Your task to perform on an android device: stop showing notifications on the lock screen Image 0: 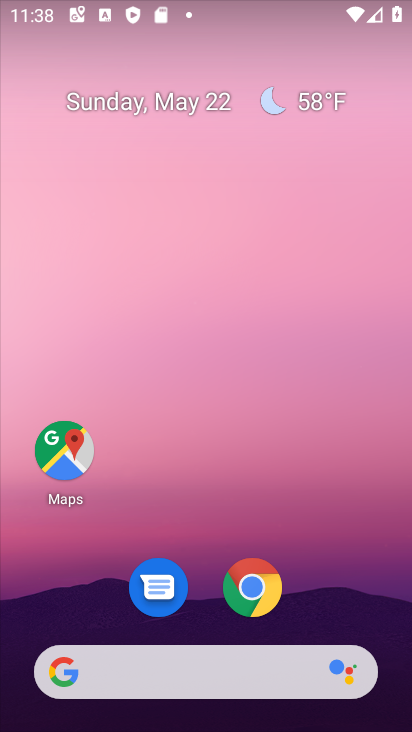
Step 0: drag from (248, 495) to (246, 10)
Your task to perform on an android device: stop showing notifications on the lock screen Image 1: 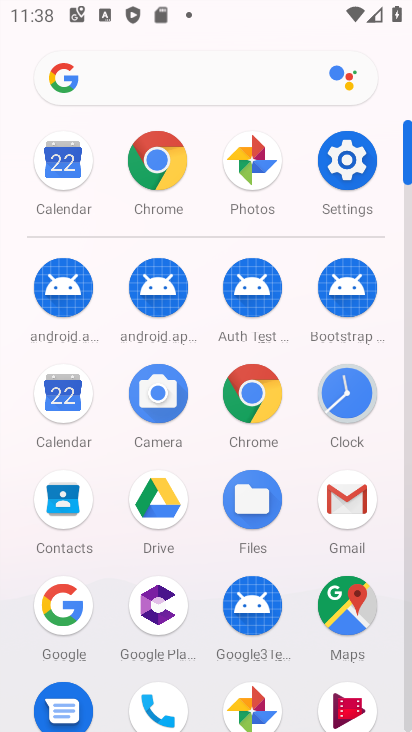
Step 1: click (332, 176)
Your task to perform on an android device: stop showing notifications on the lock screen Image 2: 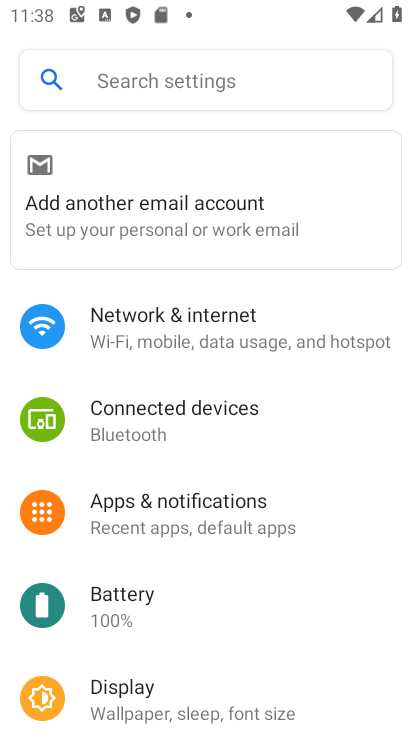
Step 2: click (250, 526)
Your task to perform on an android device: stop showing notifications on the lock screen Image 3: 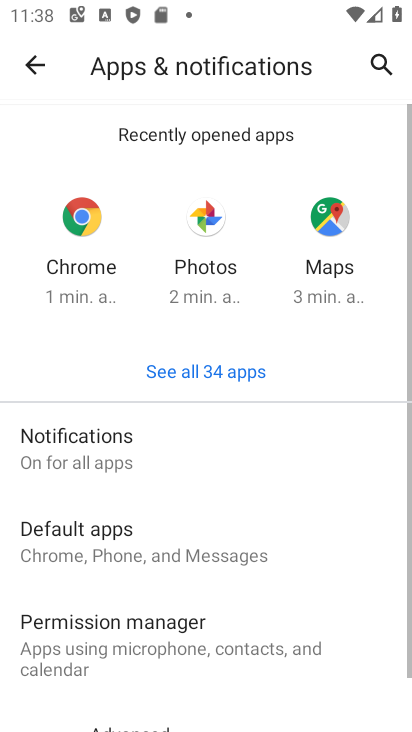
Step 3: drag from (273, 597) to (283, 160)
Your task to perform on an android device: stop showing notifications on the lock screen Image 4: 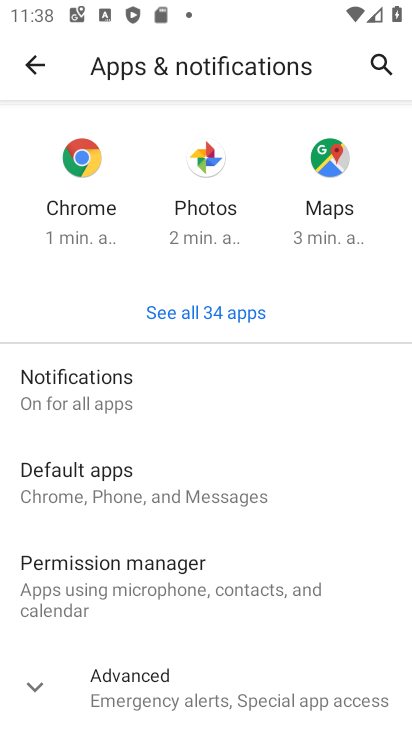
Step 4: click (173, 388)
Your task to perform on an android device: stop showing notifications on the lock screen Image 5: 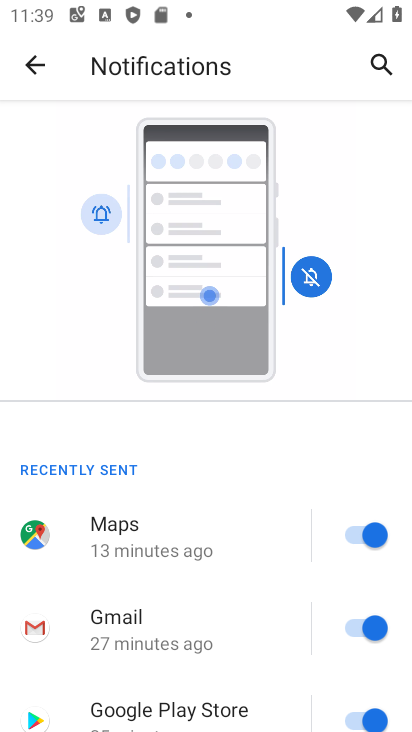
Step 5: task complete